Your task to perform on an android device: turn on javascript in the chrome app Image 0: 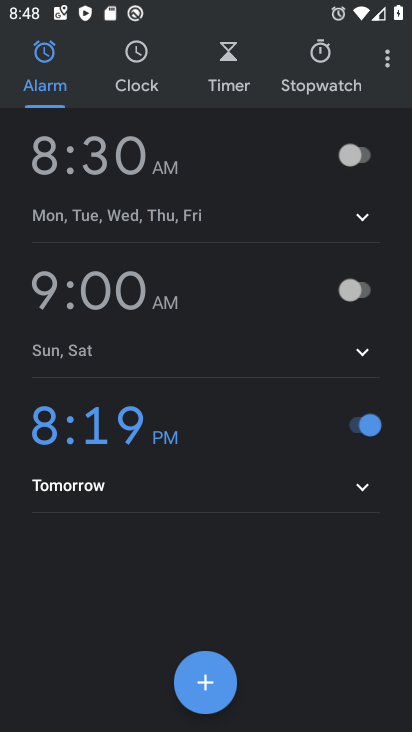
Step 0: press home button
Your task to perform on an android device: turn on javascript in the chrome app Image 1: 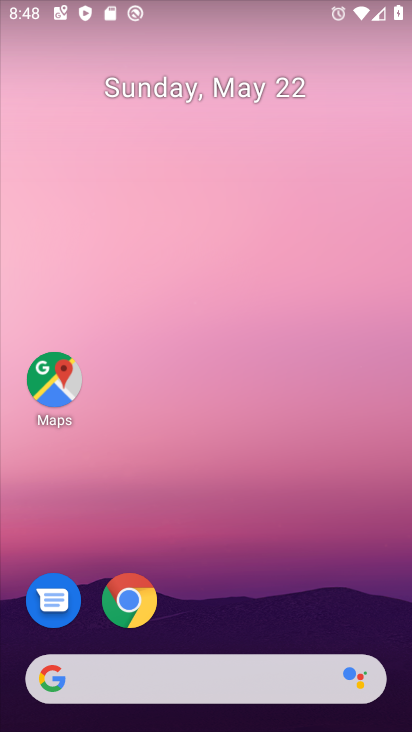
Step 1: click (131, 612)
Your task to perform on an android device: turn on javascript in the chrome app Image 2: 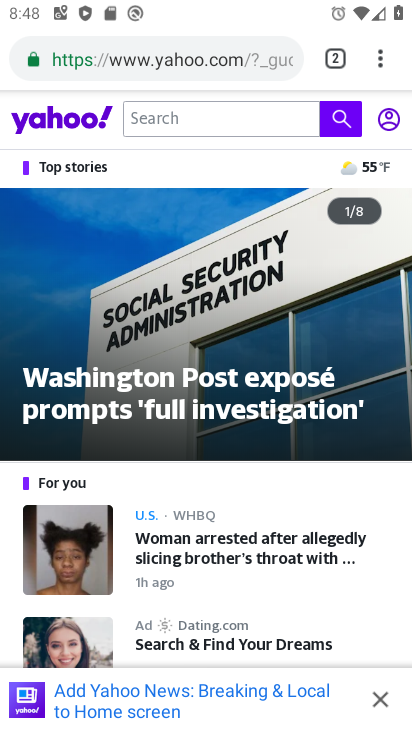
Step 2: click (381, 706)
Your task to perform on an android device: turn on javascript in the chrome app Image 3: 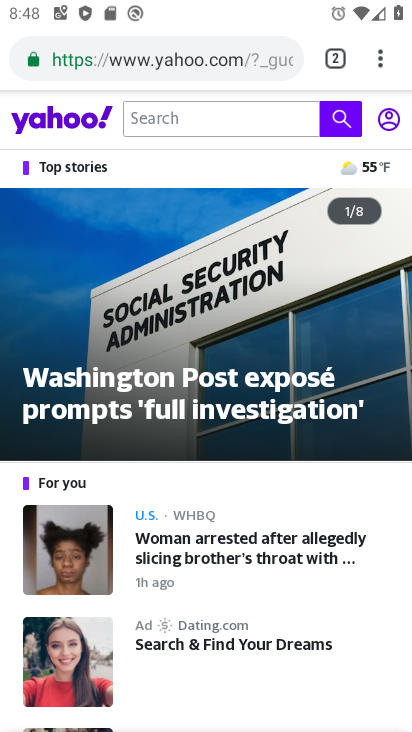
Step 3: click (383, 54)
Your task to perform on an android device: turn on javascript in the chrome app Image 4: 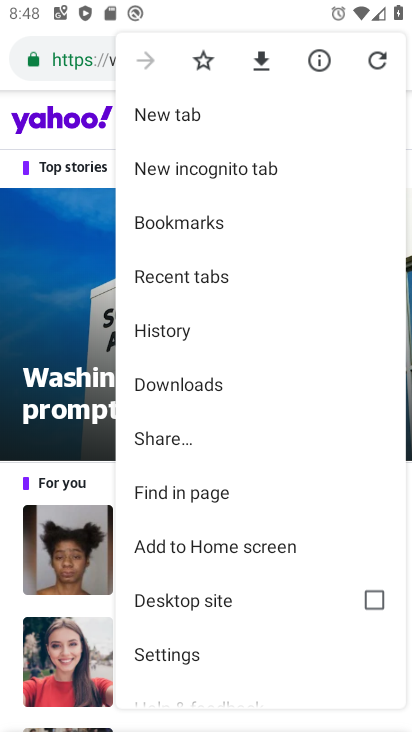
Step 4: click (194, 659)
Your task to perform on an android device: turn on javascript in the chrome app Image 5: 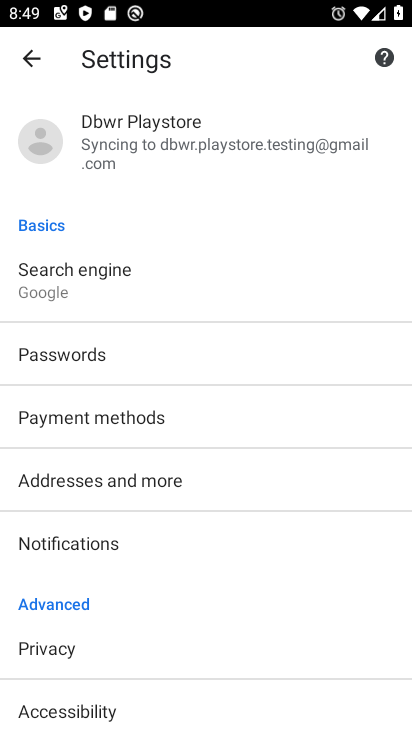
Step 5: drag from (110, 685) to (115, 489)
Your task to perform on an android device: turn on javascript in the chrome app Image 6: 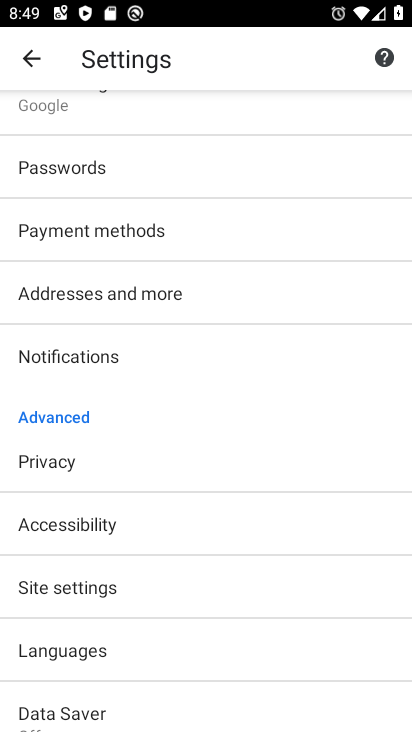
Step 6: click (98, 600)
Your task to perform on an android device: turn on javascript in the chrome app Image 7: 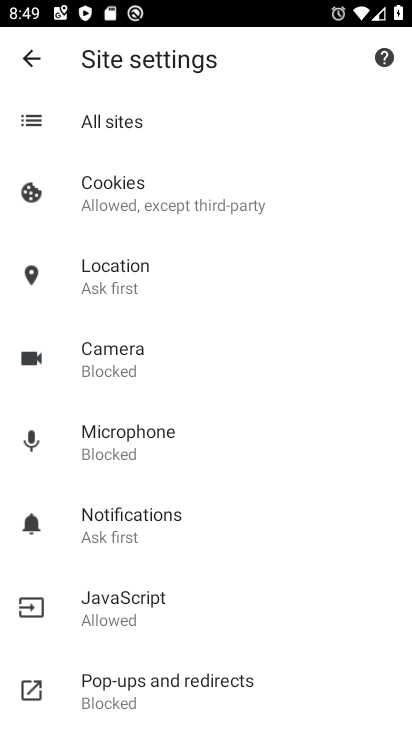
Step 7: click (147, 611)
Your task to perform on an android device: turn on javascript in the chrome app Image 8: 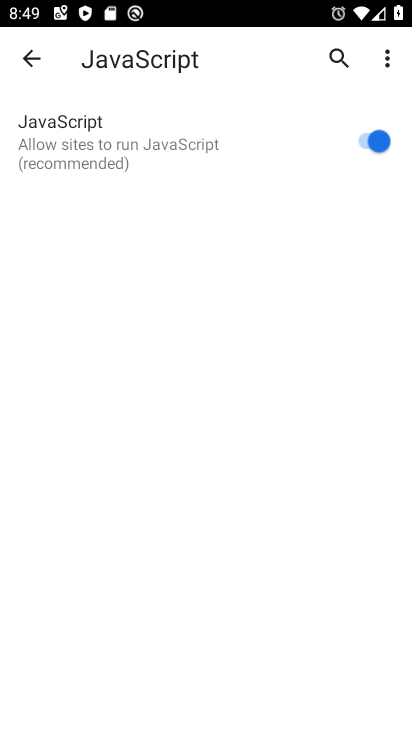
Step 8: task complete